Your task to perform on an android device: open app "Instagram" (install if not already installed) Image 0: 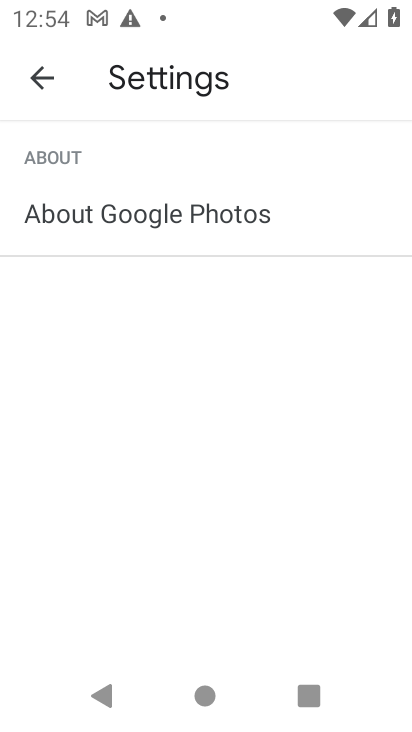
Step 0: press home button
Your task to perform on an android device: open app "Instagram" (install if not already installed) Image 1: 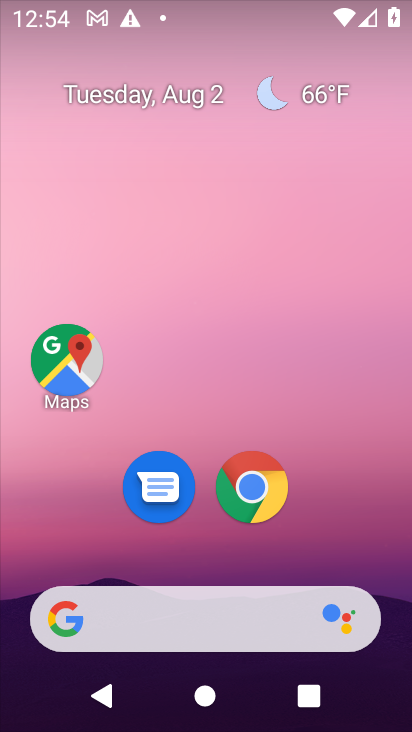
Step 1: drag from (210, 543) to (238, 13)
Your task to perform on an android device: open app "Instagram" (install if not already installed) Image 2: 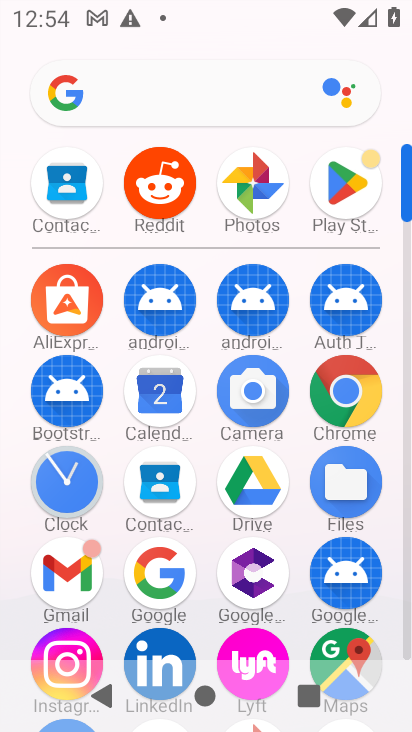
Step 2: click (371, 175)
Your task to perform on an android device: open app "Instagram" (install if not already installed) Image 3: 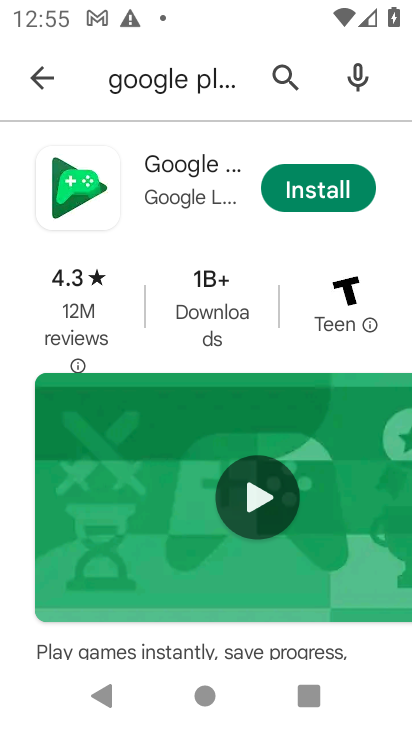
Step 3: click (38, 76)
Your task to perform on an android device: open app "Instagram" (install if not already installed) Image 4: 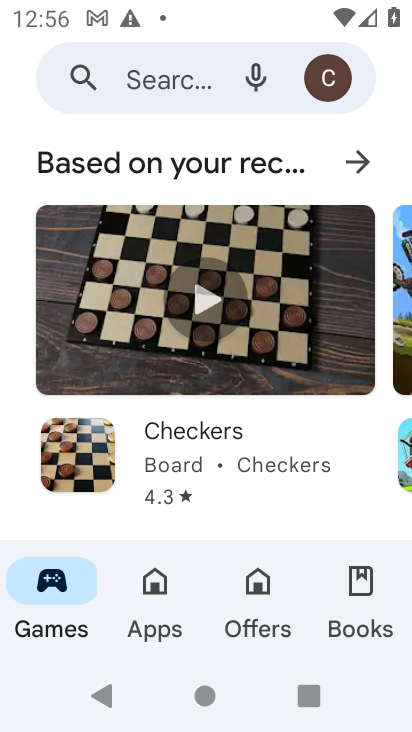
Step 4: click (124, 71)
Your task to perform on an android device: open app "Instagram" (install if not already installed) Image 5: 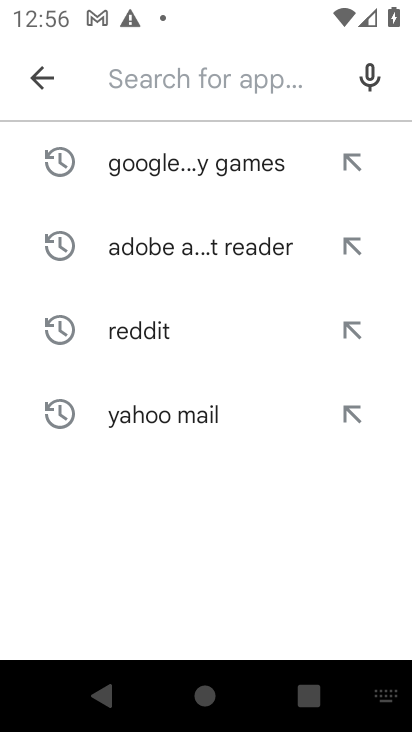
Step 5: type "Instagram"
Your task to perform on an android device: open app "Instagram" (install if not already installed) Image 6: 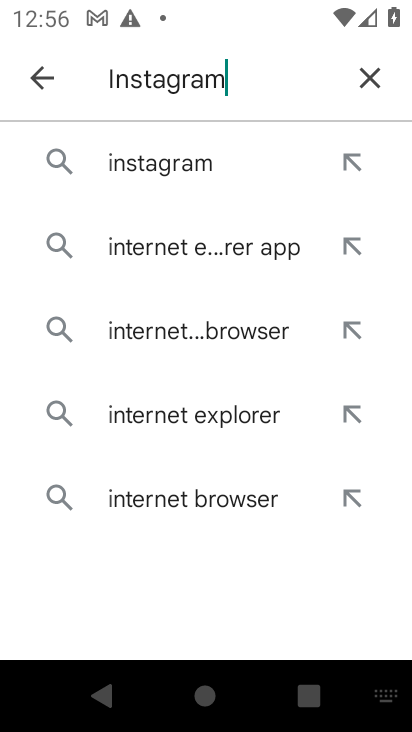
Step 6: type ""
Your task to perform on an android device: open app "Instagram" (install if not already installed) Image 7: 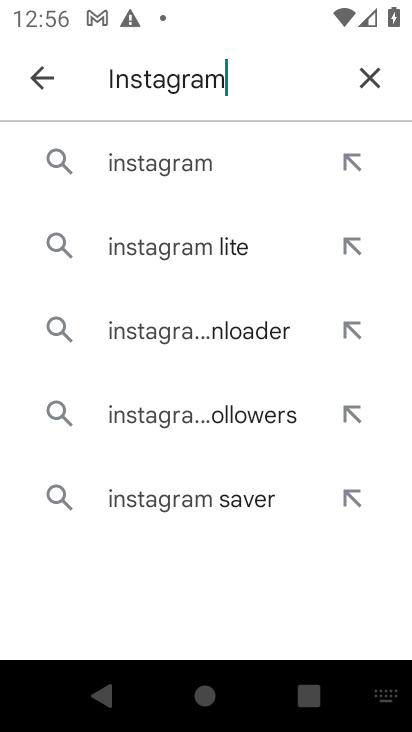
Step 7: click (203, 160)
Your task to perform on an android device: open app "Instagram" (install if not already installed) Image 8: 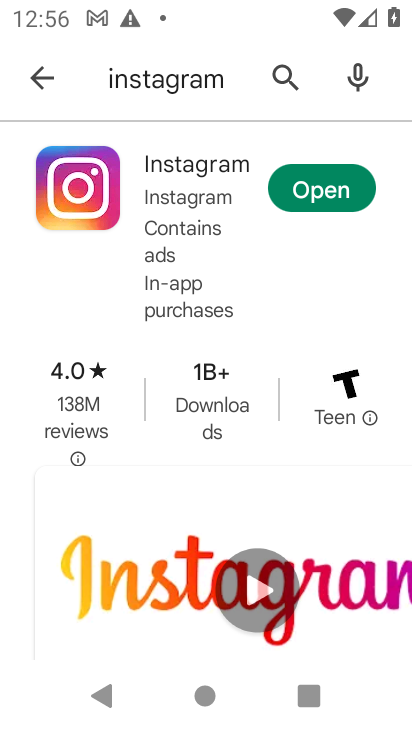
Step 8: click (319, 189)
Your task to perform on an android device: open app "Instagram" (install if not already installed) Image 9: 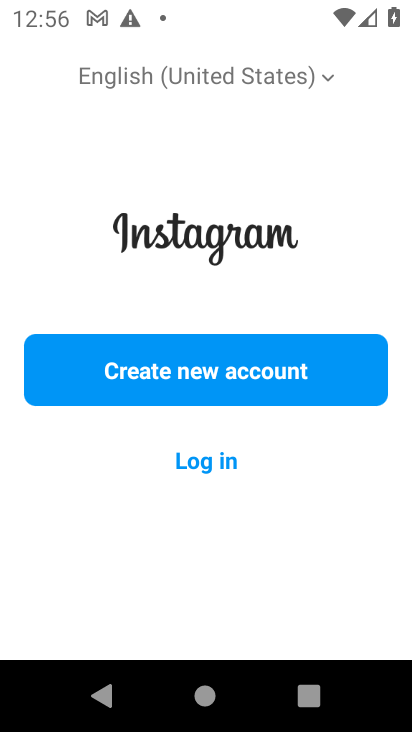
Step 9: task complete